Your task to perform on an android device: Install the Pandora app Image 0: 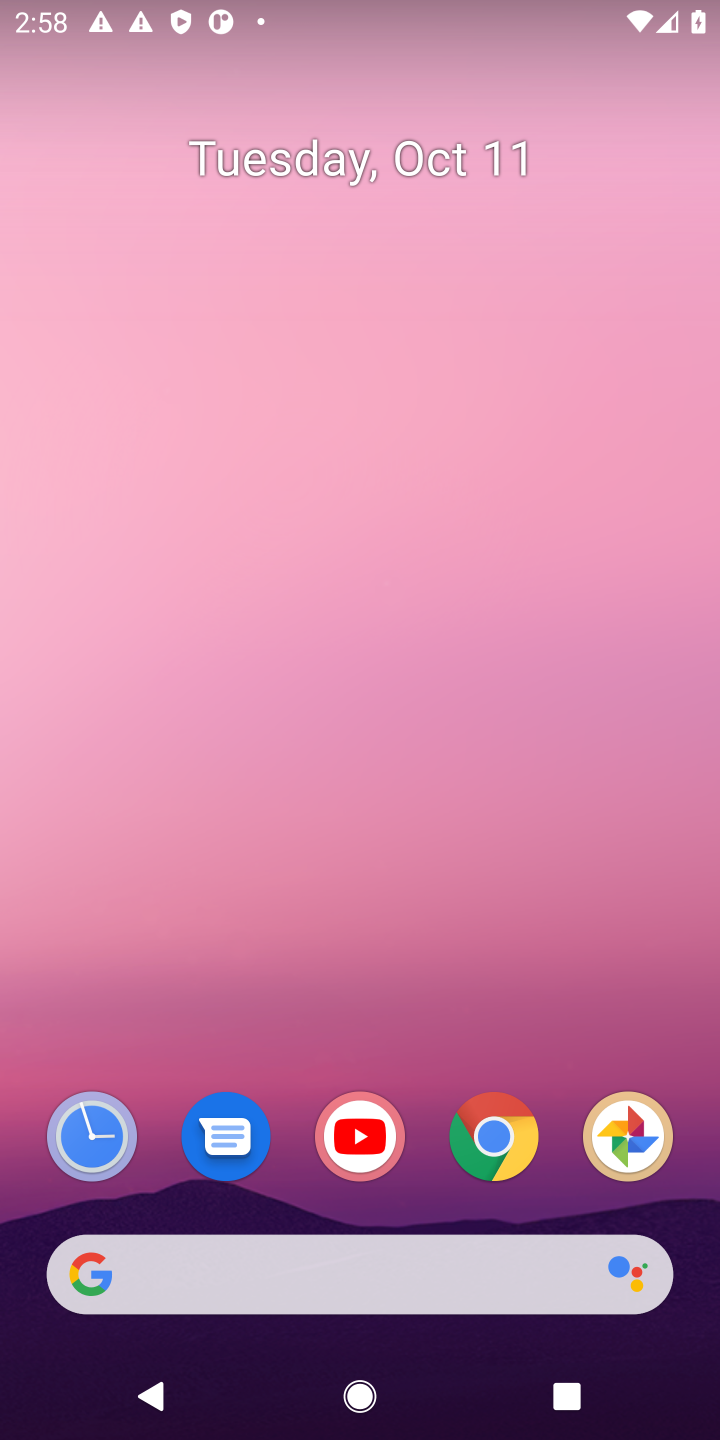
Step 0: drag from (436, 1052) to (421, 158)
Your task to perform on an android device: Install the Pandora app Image 1: 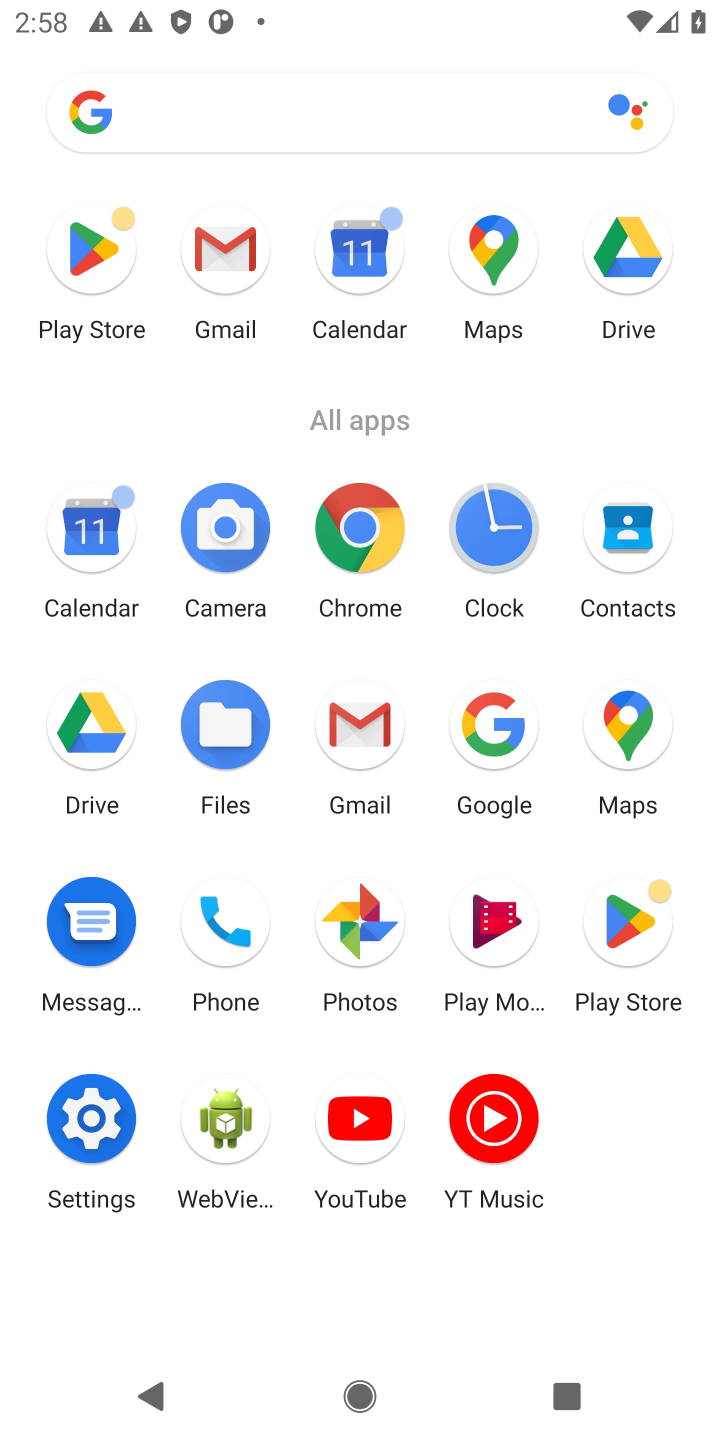
Step 1: click (98, 263)
Your task to perform on an android device: Install the Pandora app Image 2: 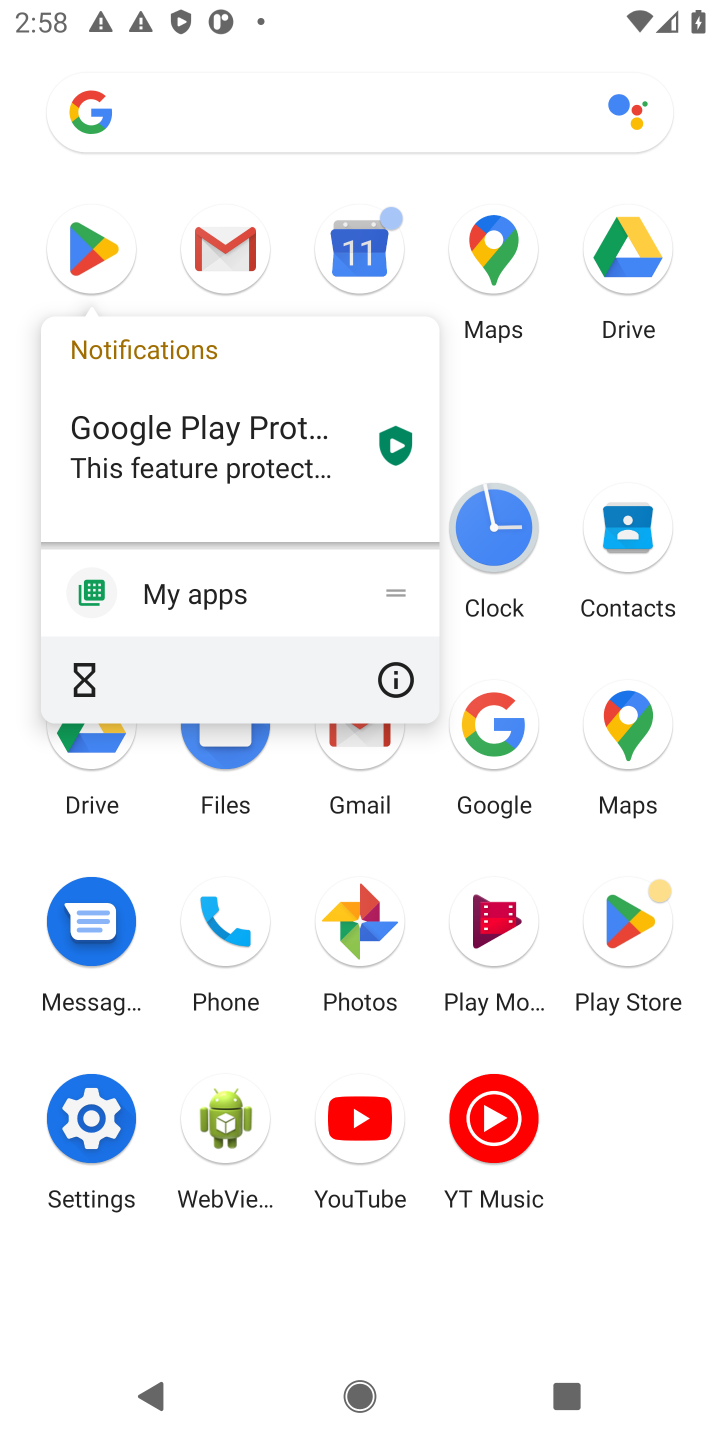
Step 2: click (91, 241)
Your task to perform on an android device: Install the Pandora app Image 3: 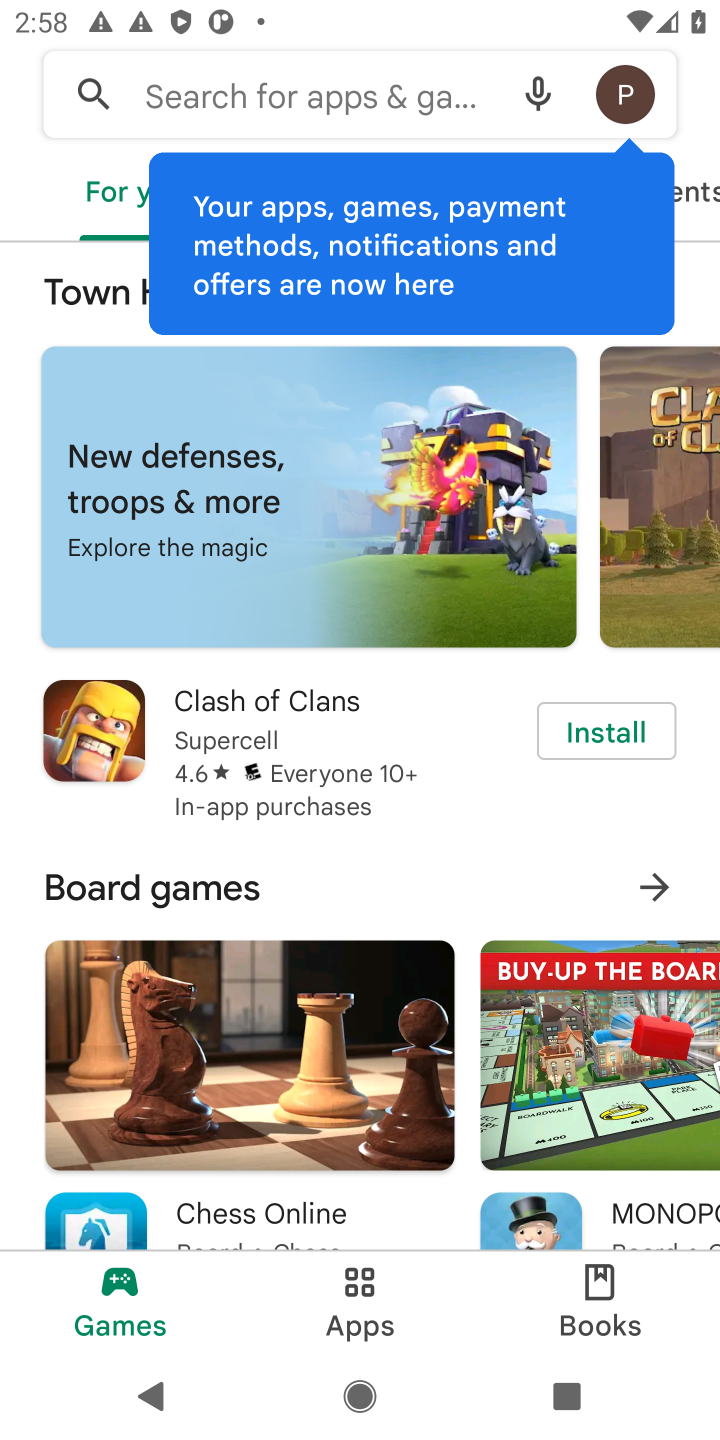
Step 3: click (441, 89)
Your task to perform on an android device: Install the Pandora app Image 4: 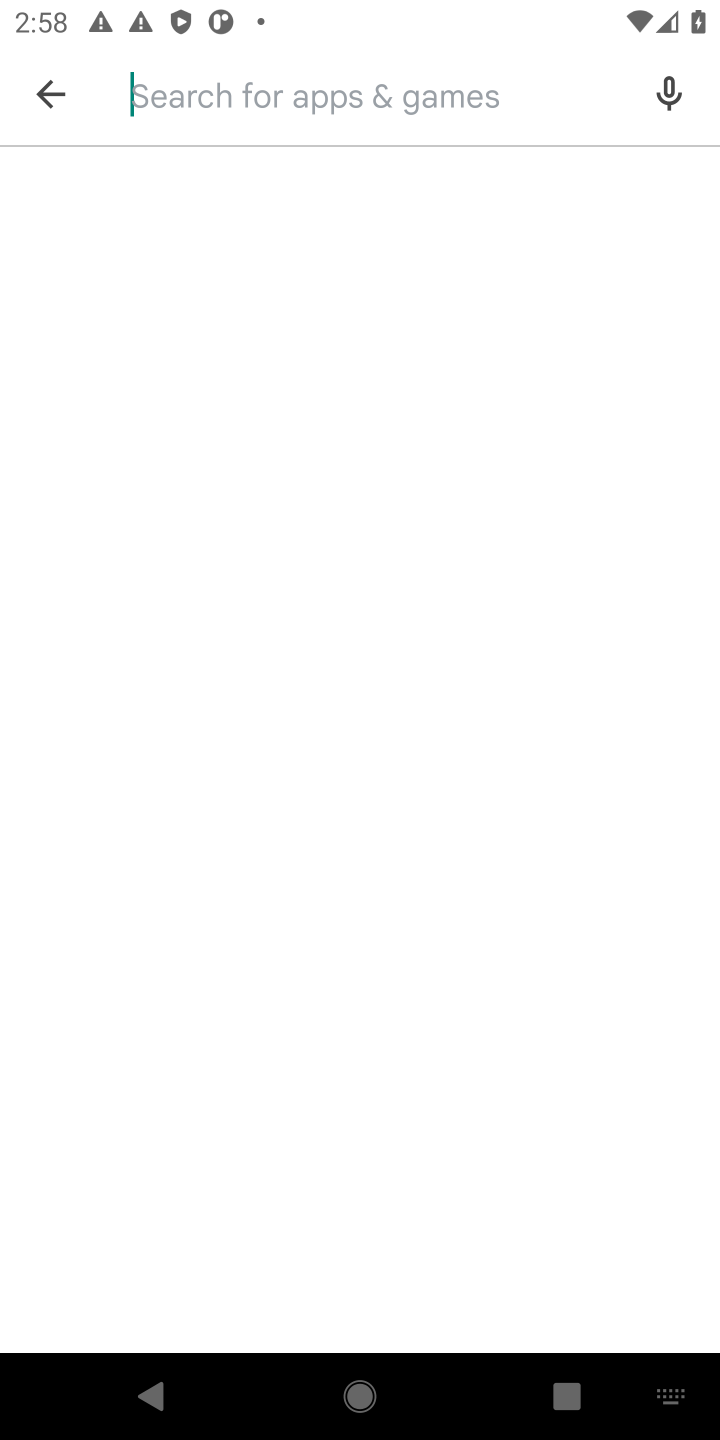
Step 4: type " Pandora app"
Your task to perform on an android device: Install the Pandora app Image 5: 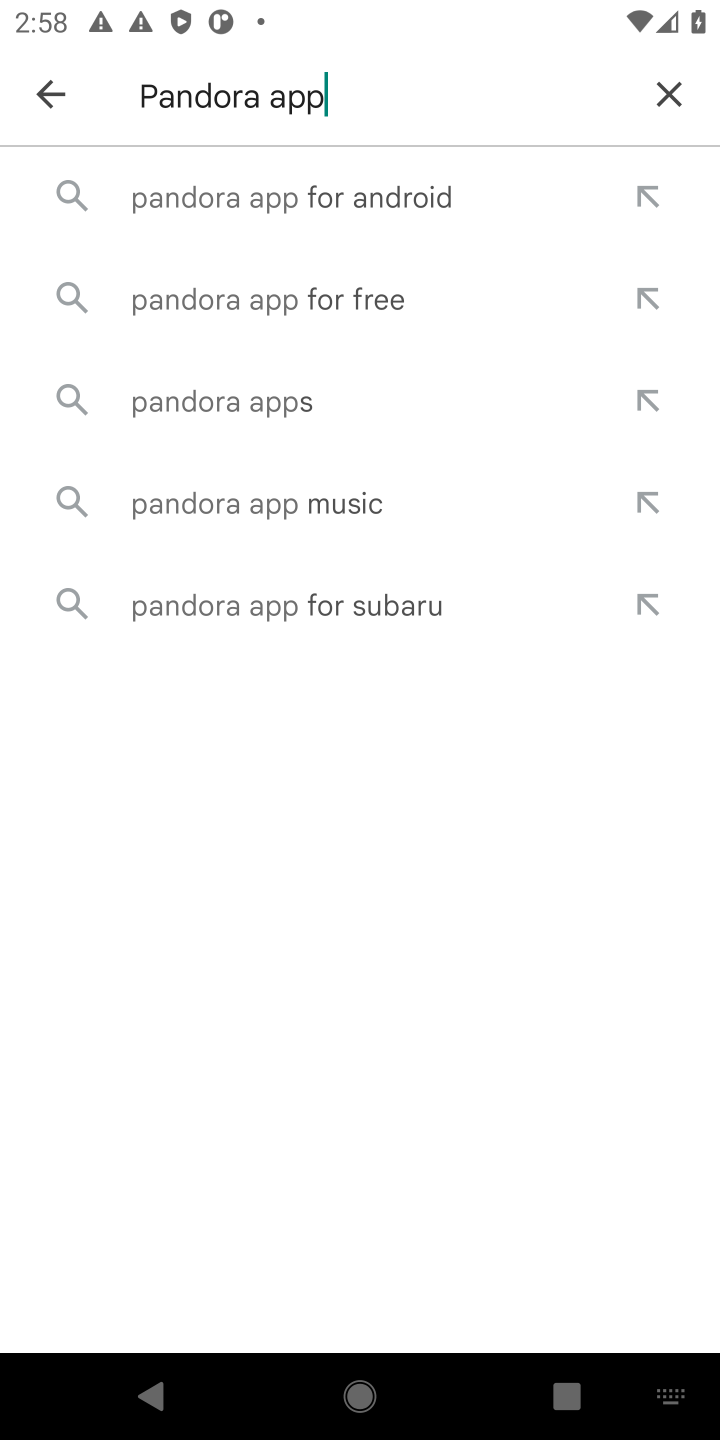
Step 5: press enter
Your task to perform on an android device: Install the Pandora app Image 6: 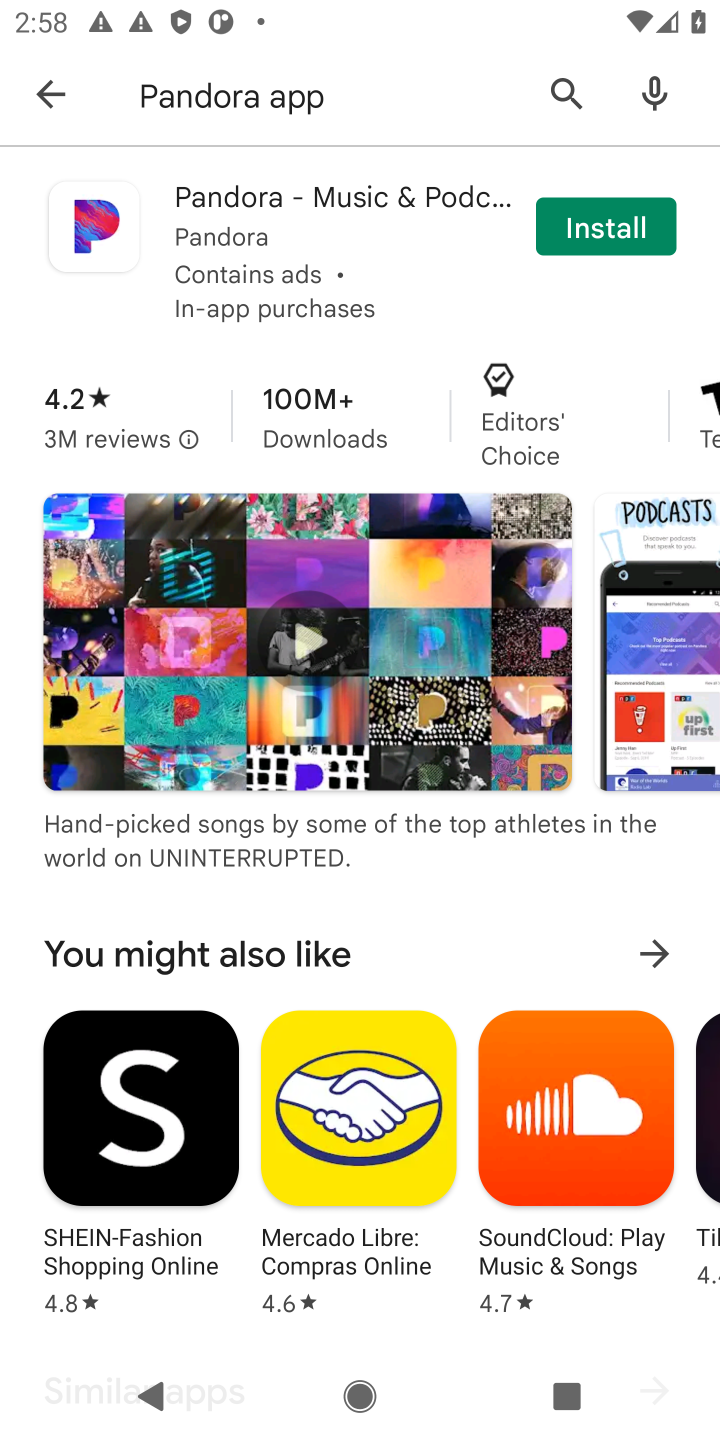
Step 6: click (614, 226)
Your task to perform on an android device: Install the Pandora app Image 7: 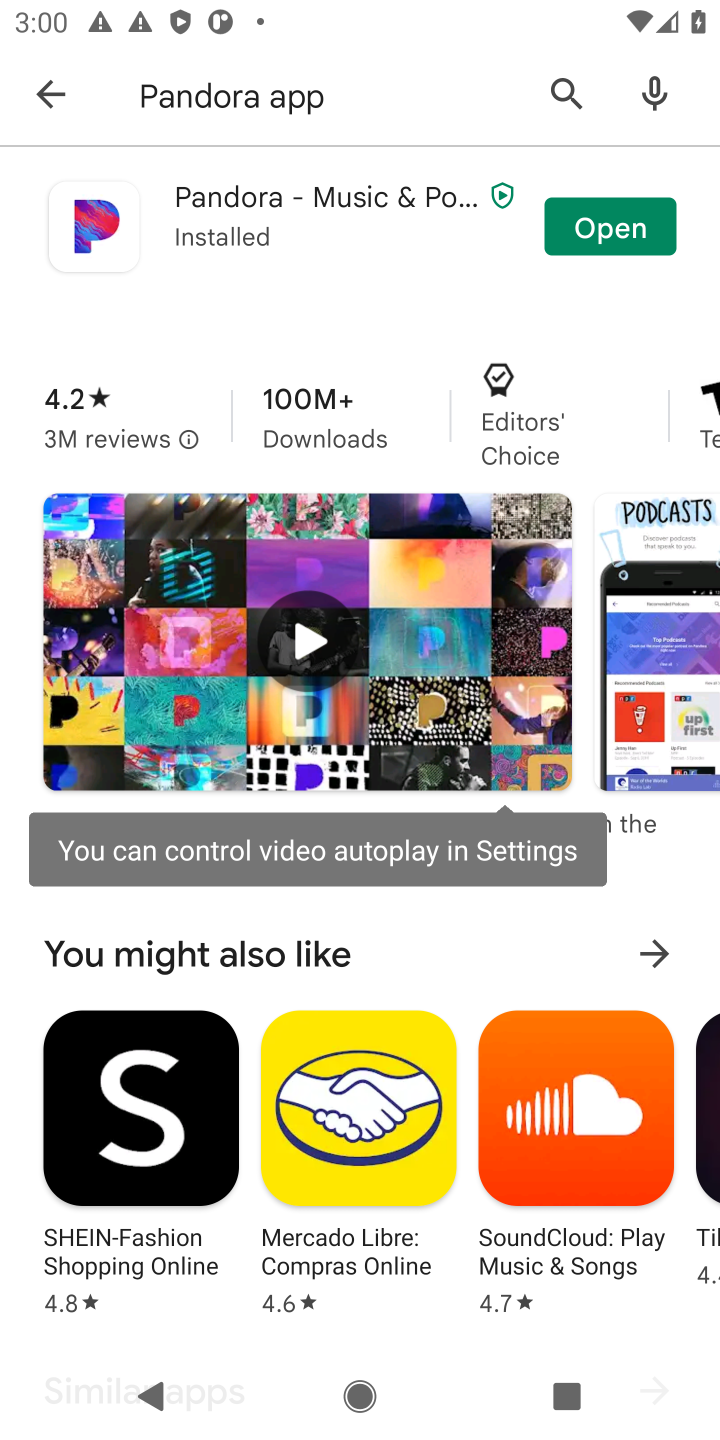
Step 7: task complete